Your task to perform on an android device: Set the phone to "Do not disturb". Image 0: 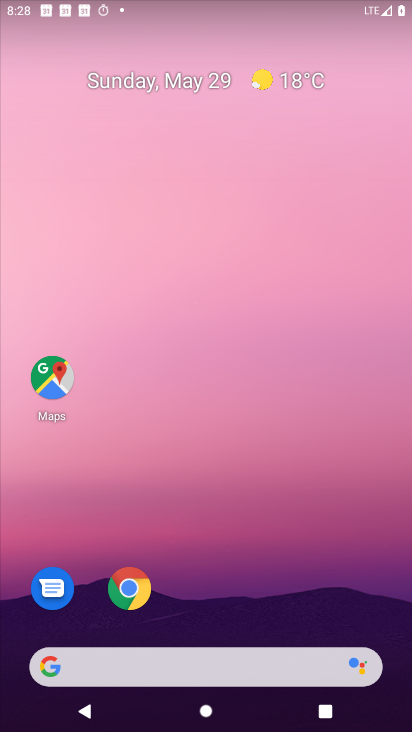
Step 0: drag from (204, 582) to (246, 194)
Your task to perform on an android device: Set the phone to "Do not disturb". Image 1: 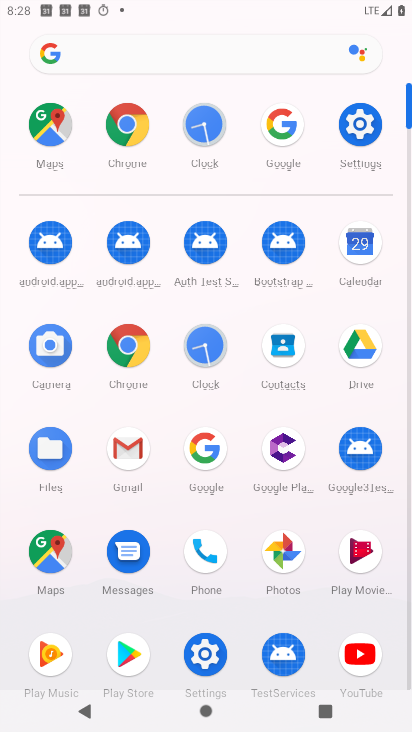
Step 1: click (358, 118)
Your task to perform on an android device: Set the phone to "Do not disturb". Image 2: 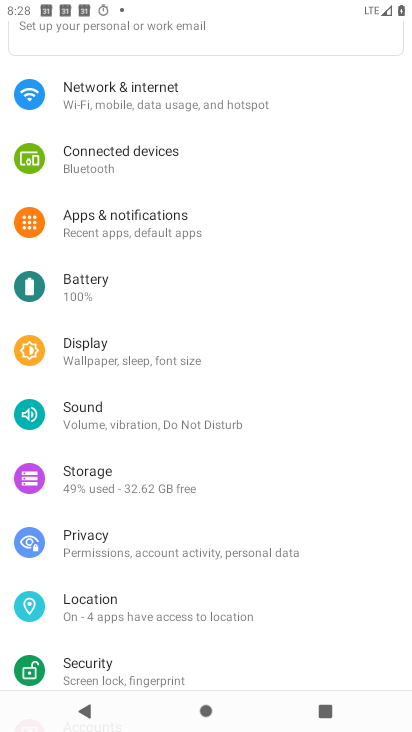
Step 2: drag from (163, 570) to (214, 214)
Your task to perform on an android device: Set the phone to "Do not disturb". Image 3: 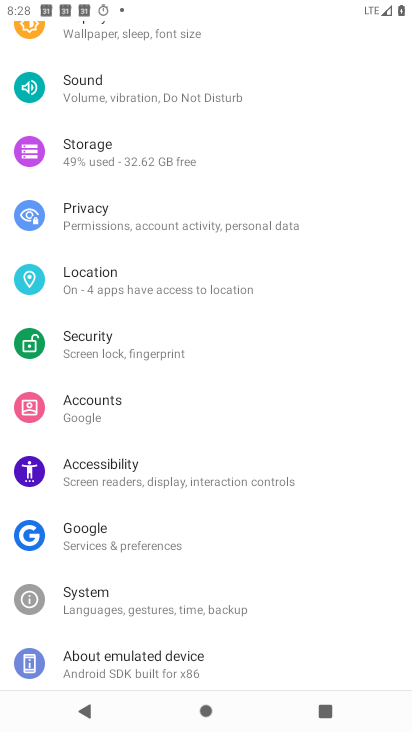
Step 3: click (120, 83)
Your task to perform on an android device: Set the phone to "Do not disturb". Image 4: 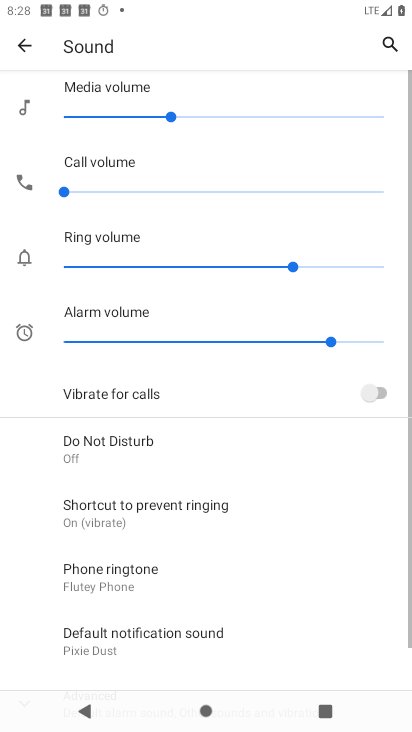
Step 4: click (107, 452)
Your task to perform on an android device: Set the phone to "Do not disturb". Image 5: 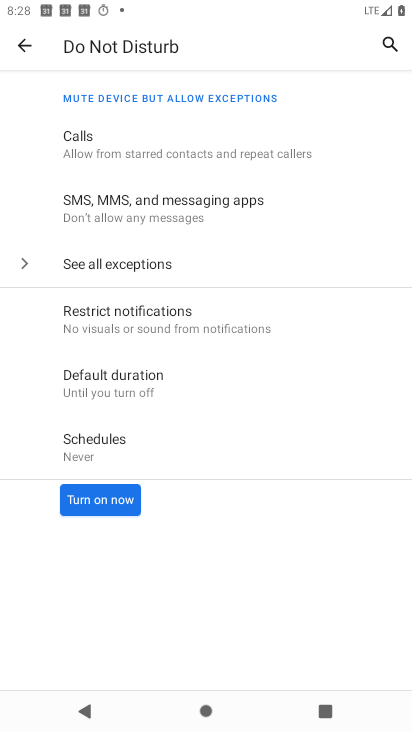
Step 5: click (100, 500)
Your task to perform on an android device: Set the phone to "Do not disturb". Image 6: 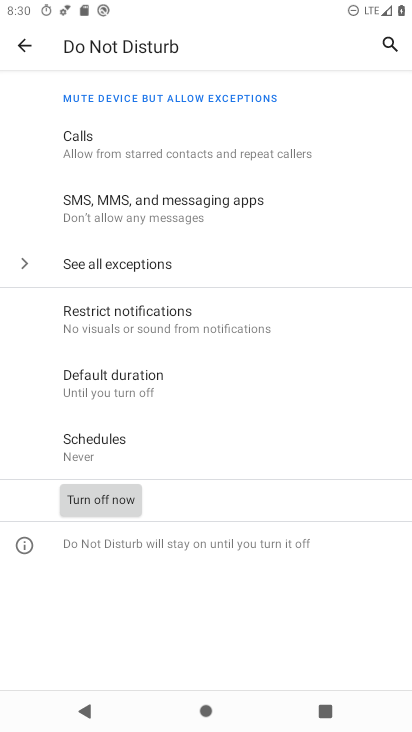
Step 6: task complete